Your task to perform on an android device: turn pop-ups off in chrome Image 0: 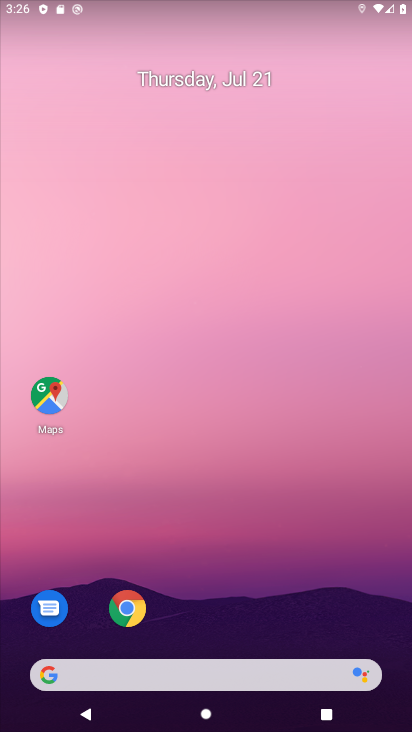
Step 0: press home button
Your task to perform on an android device: turn pop-ups off in chrome Image 1: 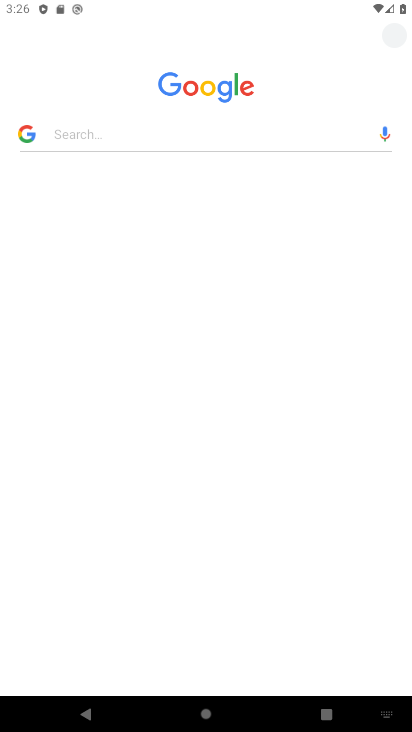
Step 1: drag from (268, 168) to (275, 70)
Your task to perform on an android device: turn pop-ups off in chrome Image 2: 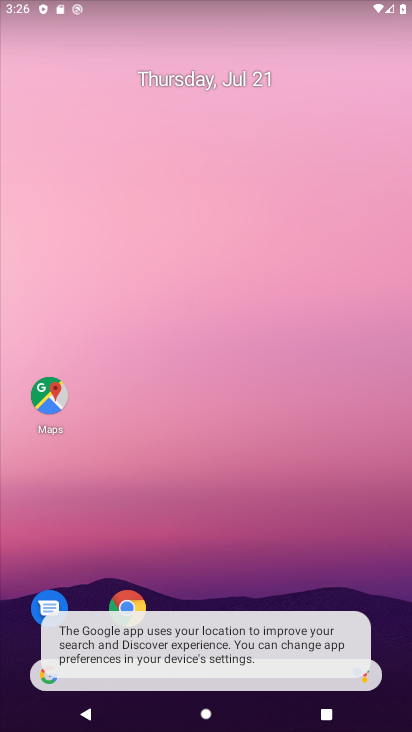
Step 2: drag from (285, 688) to (335, 61)
Your task to perform on an android device: turn pop-ups off in chrome Image 3: 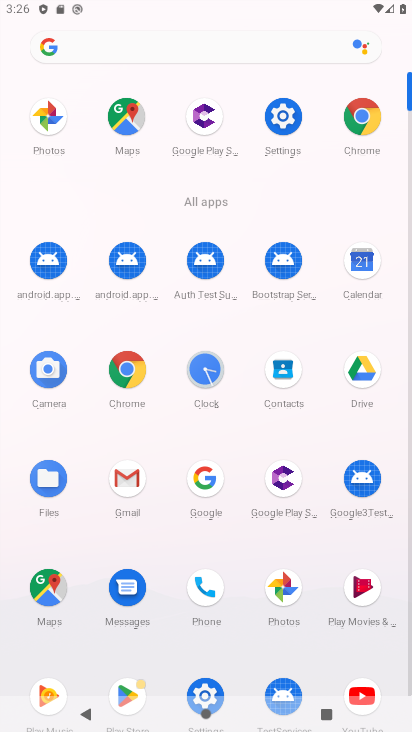
Step 3: click (129, 375)
Your task to perform on an android device: turn pop-ups off in chrome Image 4: 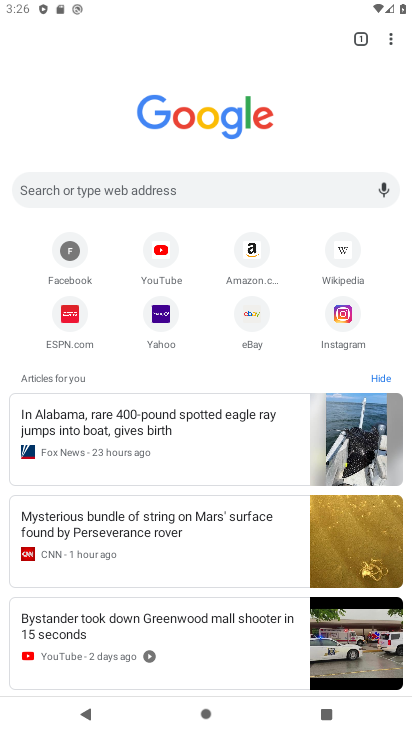
Step 4: click (388, 37)
Your task to perform on an android device: turn pop-ups off in chrome Image 5: 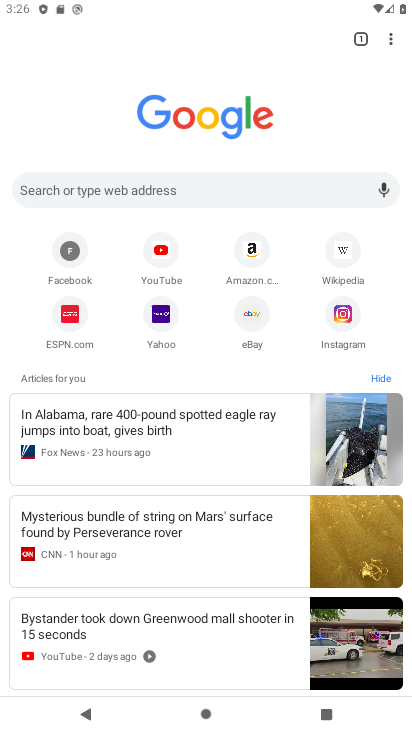
Step 5: drag from (391, 42) to (288, 326)
Your task to perform on an android device: turn pop-ups off in chrome Image 6: 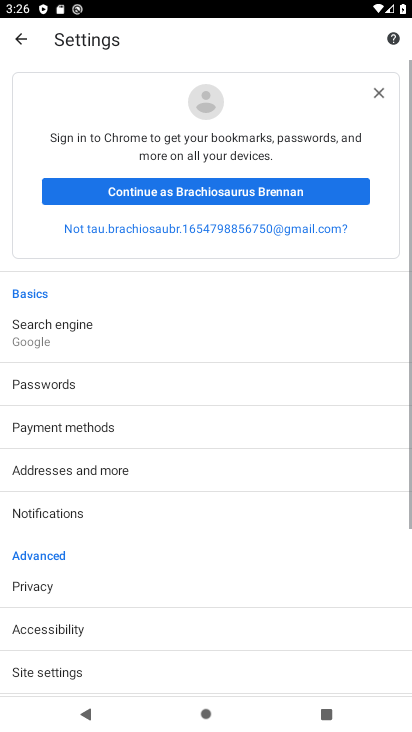
Step 6: drag from (179, 555) to (213, 179)
Your task to perform on an android device: turn pop-ups off in chrome Image 7: 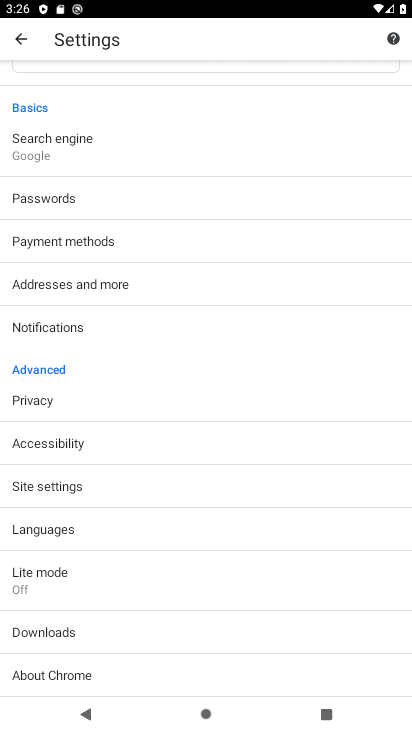
Step 7: drag from (79, 642) to (106, 501)
Your task to perform on an android device: turn pop-ups off in chrome Image 8: 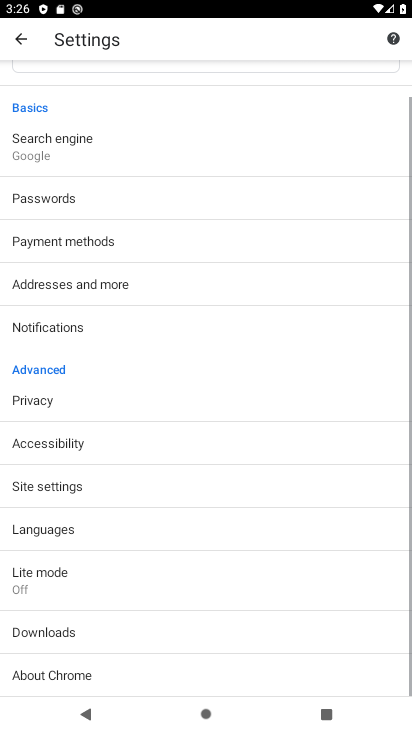
Step 8: click (76, 492)
Your task to perform on an android device: turn pop-ups off in chrome Image 9: 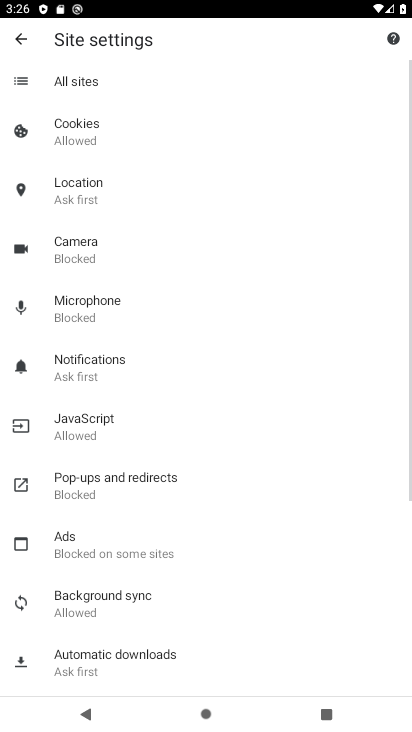
Step 9: click (169, 478)
Your task to perform on an android device: turn pop-ups off in chrome Image 10: 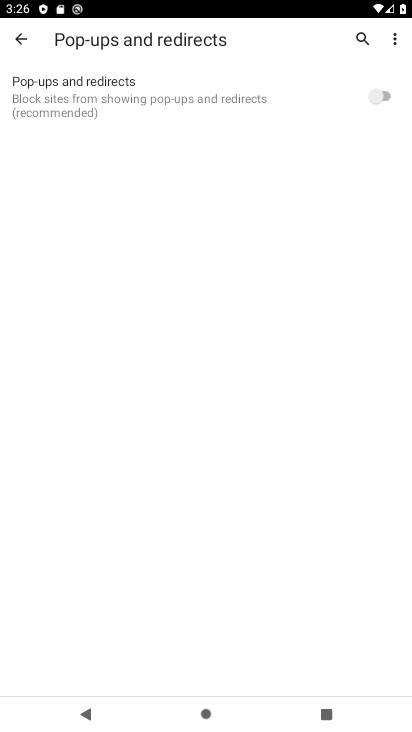
Step 10: task complete